Your task to perform on an android device: Go to accessibility settings Image 0: 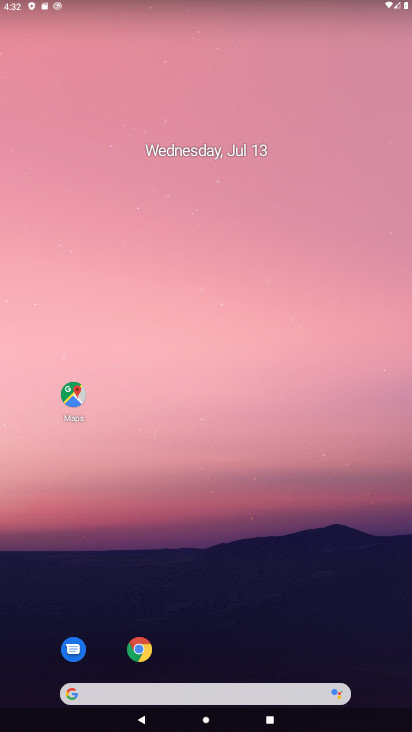
Step 0: drag from (267, 610) to (409, 123)
Your task to perform on an android device: Go to accessibility settings Image 1: 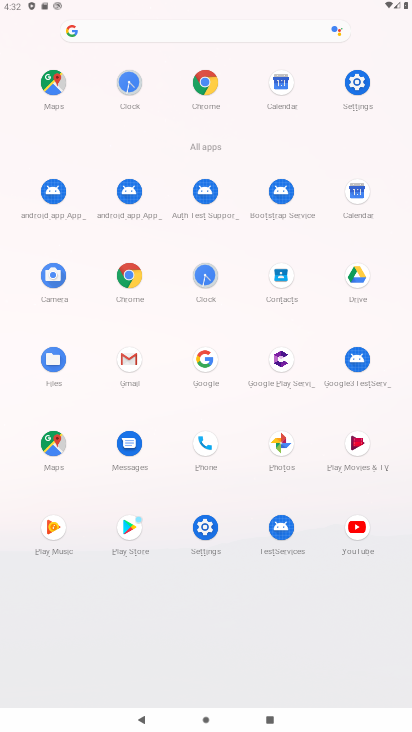
Step 1: click (353, 85)
Your task to perform on an android device: Go to accessibility settings Image 2: 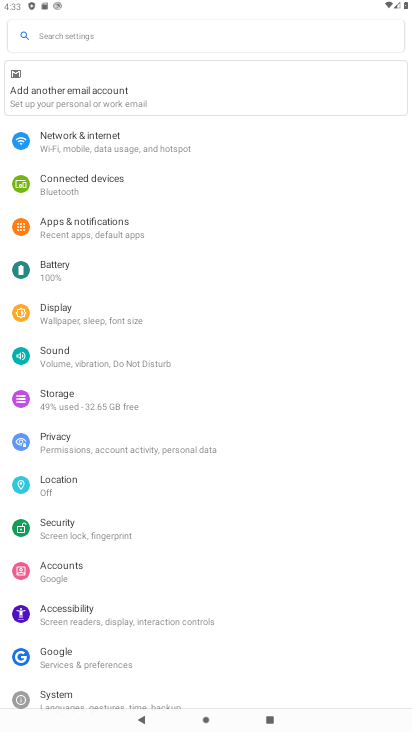
Step 2: click (88, 610)
Your task to perform on an android device: Go to accessibility settings Image 3: 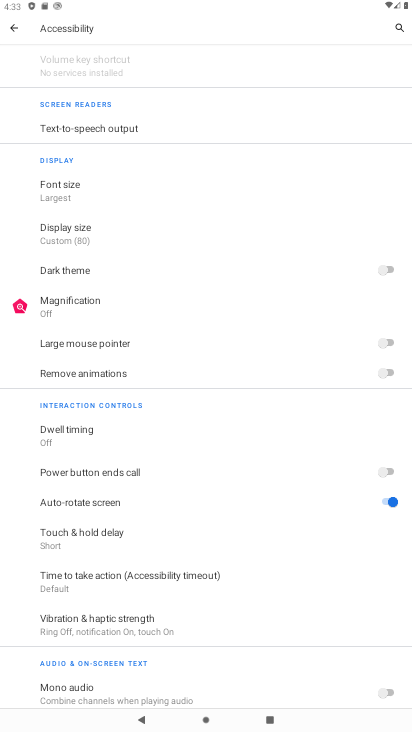
Step 3: task complete